Your task to perform on an android device: Is it going to rain this weekend? Image 0: 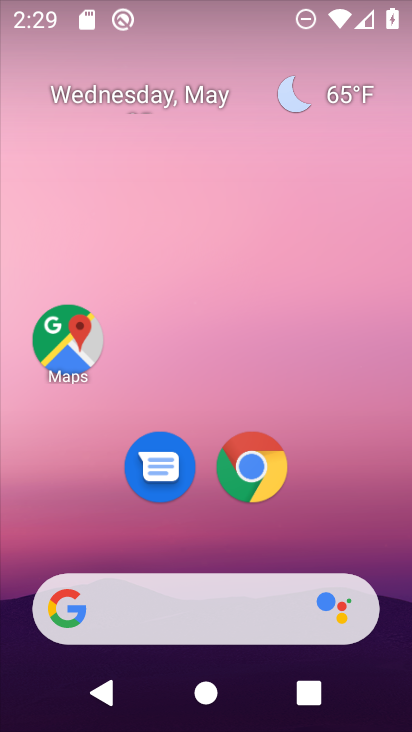
Step 0: drag from (331, 356) to (315, 181)
Your task to perform on an android device: Is it going to rain this weekend? Image 1: 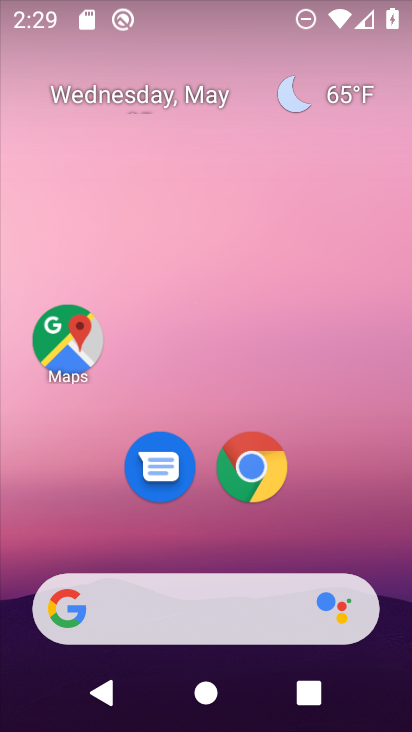
Step 1: click (246, 470)
Your task to perform on an android device: Is it going to rain this weekend? Image 2: 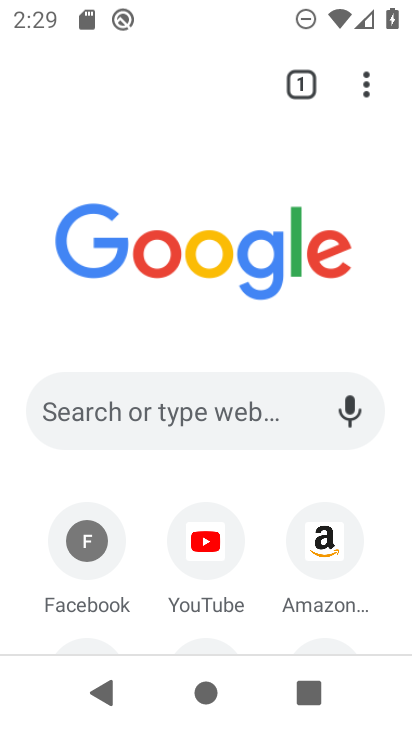
Step 2: click (236, 412)
Your task to perform on an android device: Is it going to rain this weekend? Image 3: 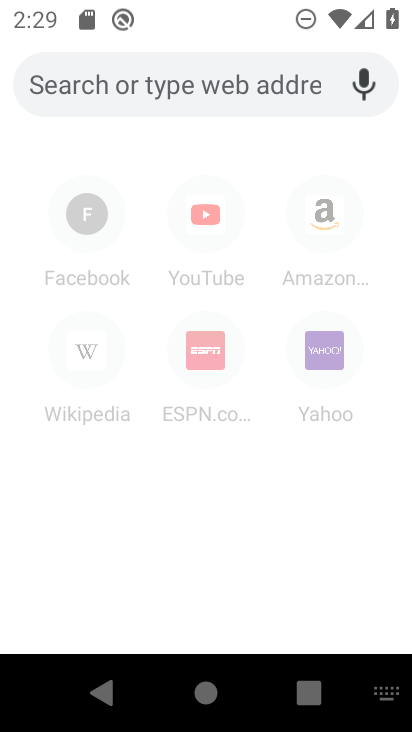
Step 3: type "Is it going to rain this weekend?"
Your task to perform on an android device: Is it going to rain this weekend? Image 4: 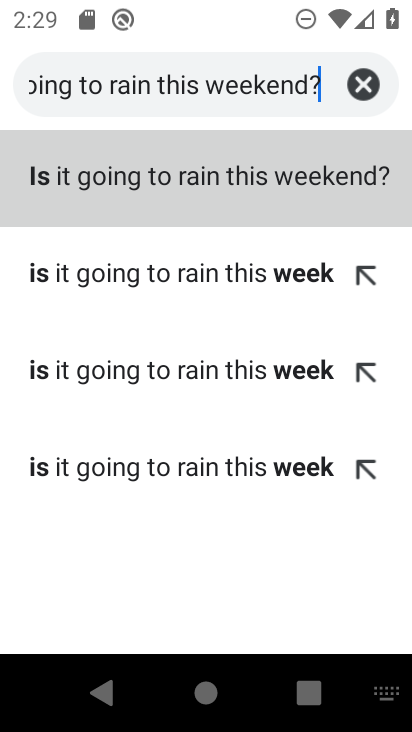
Step 4: click (251, 189)
Your task to perform on an android device: Is it going to rain this weekend? Image 5: 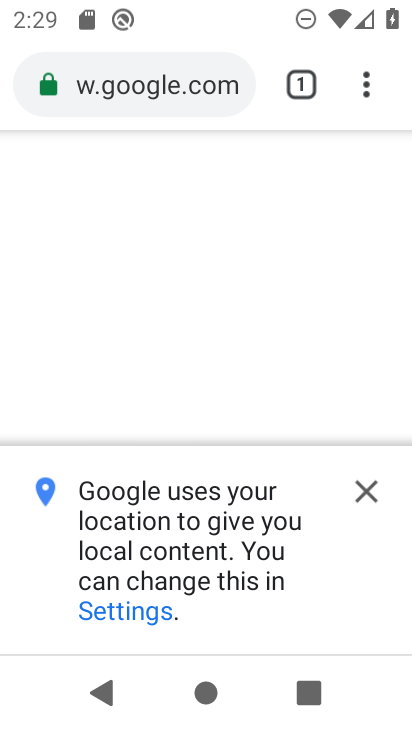
Step 5: task complete